Your task to perform on an android device: Go to internet settings Image 0: 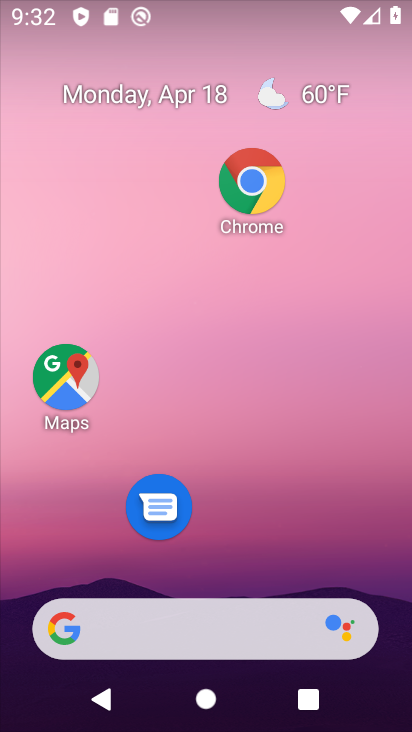
Step 0: drag from (147, 495) to (151, 209)
Your task to perform on an android device: Go to internet settings Image 1: 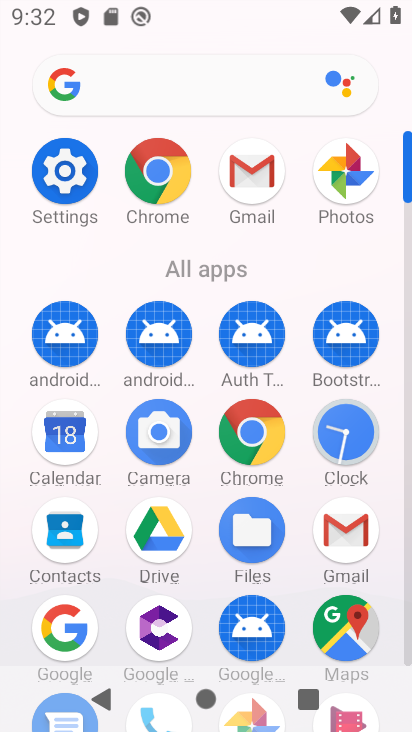
Step 1: click (40, 181)
Your task to perform on an android device: Go to internet settings Image 2: 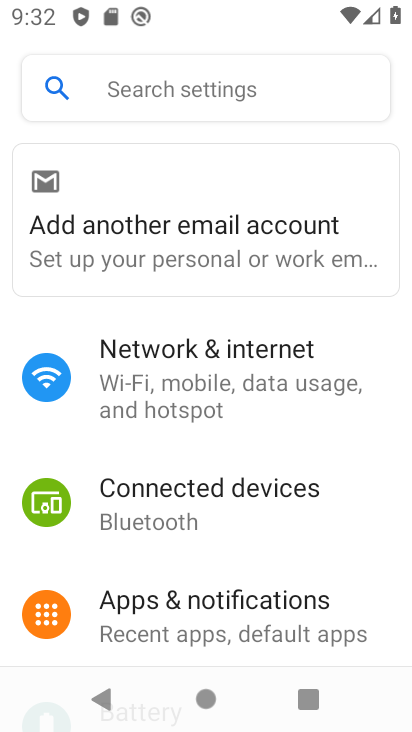
Step 2: click (138, 396)
Your task to perform on an android device: Go to internet settings Image 3: 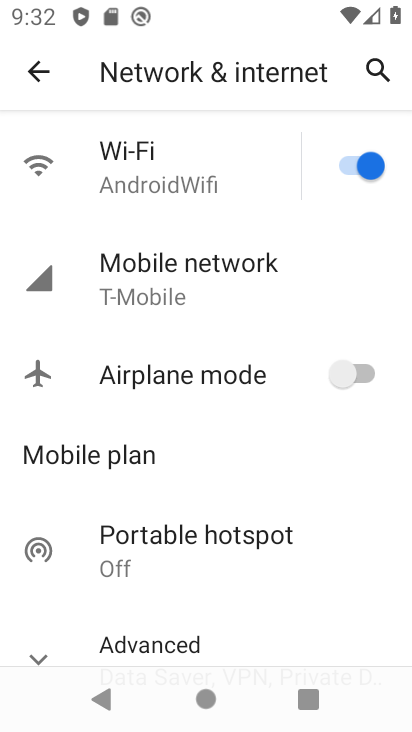
Step 3: task complete